Your task to perform on an android device: set the stopwatch Image 0: 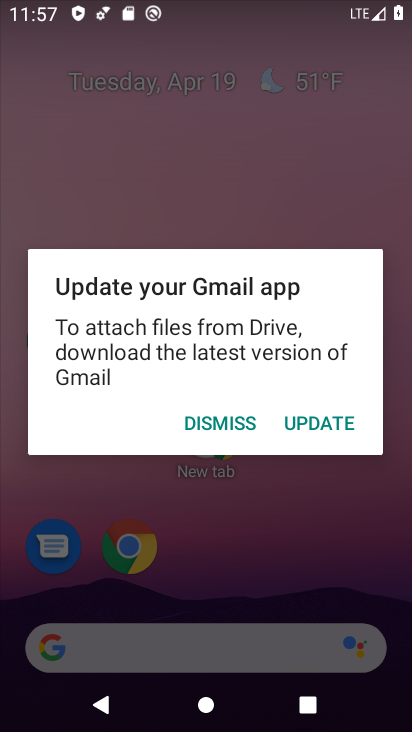
Step 0: press home button
Your task to perform on an android device: set the stopwatch Image 1: 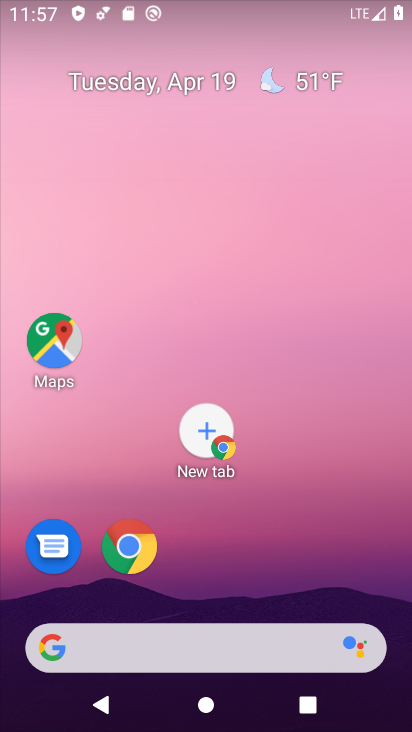
Step 1: drag from (308, 427) to (272, 41)
Your task to perform on an android device: set the stopwatch Image 2: 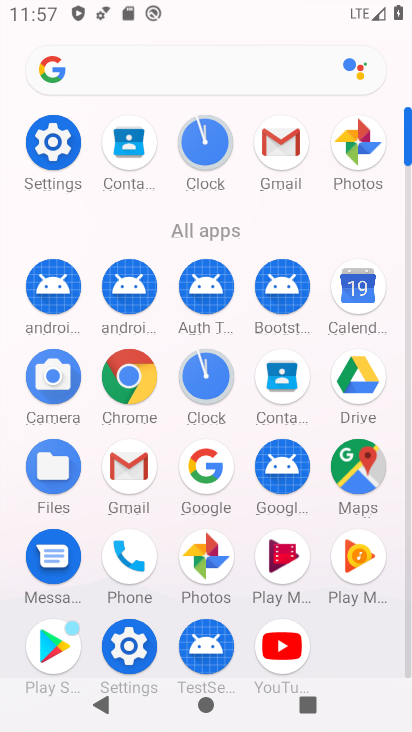
Step 2: click (215, 138)
Your task to perform on an android device: set the stopwatch Image 3: 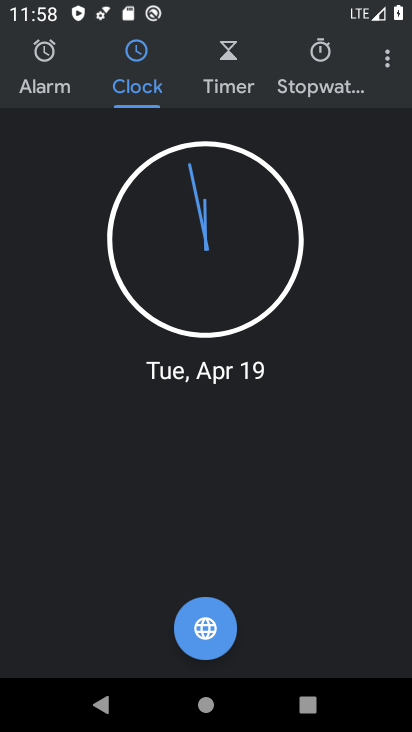
Step 3: click (338, 50)
Your task to perform on an android device: set the stopwatch Image 4: 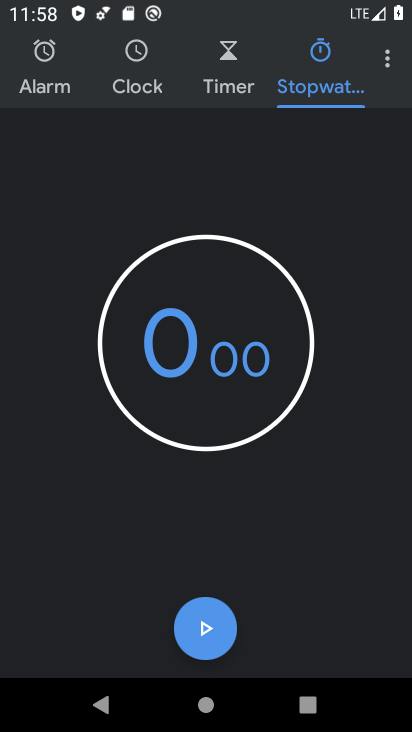
Step 4: click (215, 635)
Your task to perform on an android device: set the stopwatch Image 5: 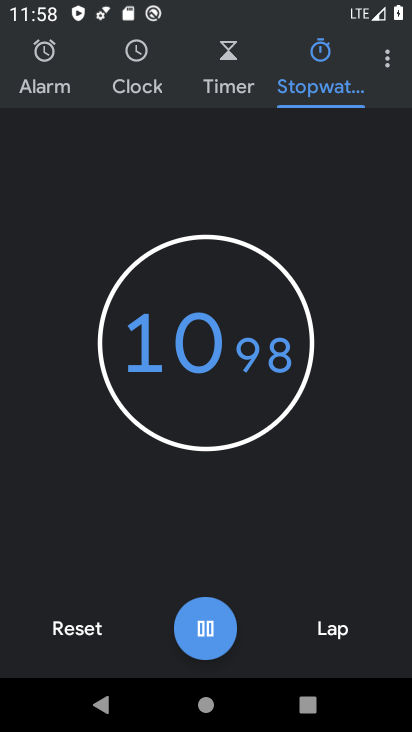
Step 5: task complete